Your task to perform on an android device: toggle location history Image 0: 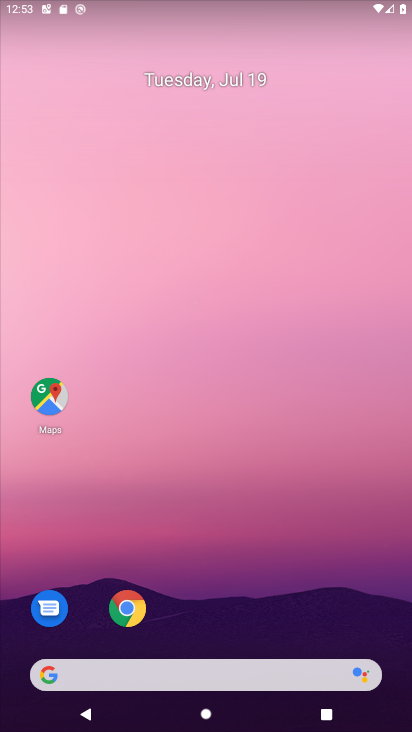
Step 0: drag from (205, 622) to (277, 118)
Your task to perform on an android device: toggle location history Image 1: 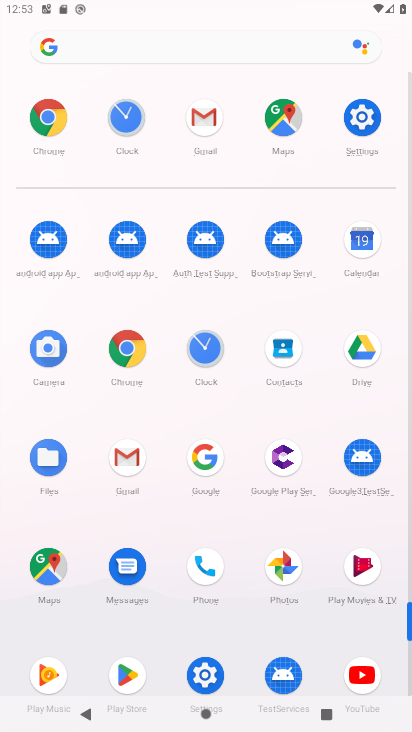
Step 1: click (214, 678)
Your task to perform on an android device: toggle location history Image 2: 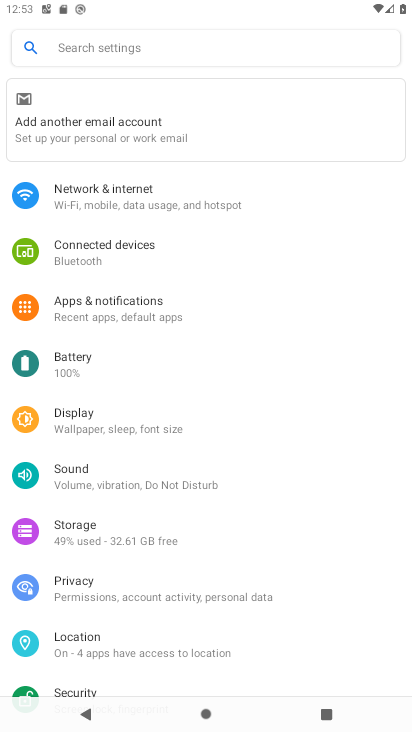
Step 2: click (105, 641)
Your task to perform on an android device: toggle location history Image 3: 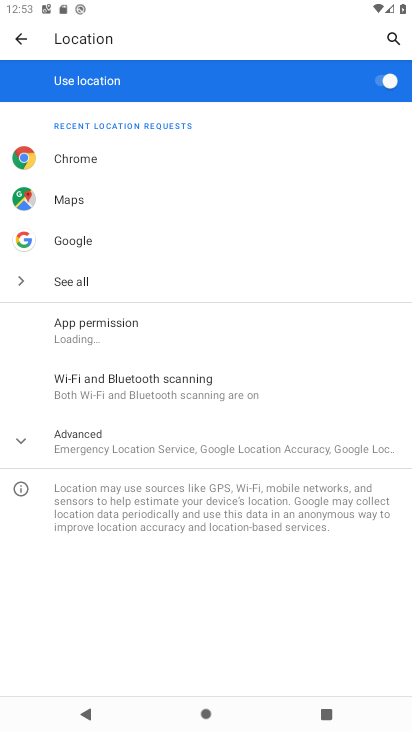
Step 3: click (400, 80)
Your task to perform on an android device: toggle location history Image 4: 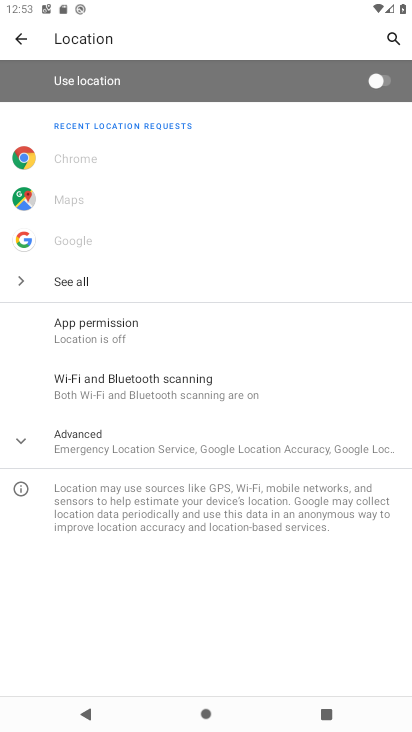
Step 4: task complete